Your task to perform on an android device: Check the weather Image 0: 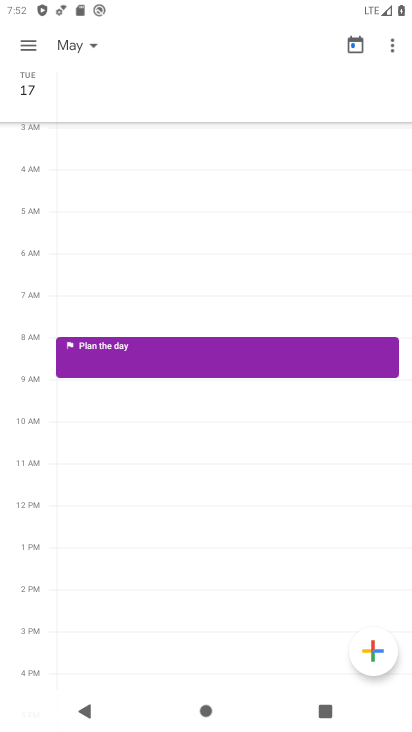
Step 0: press home button
Your task to perform on an android device: Check the weather Image 1: 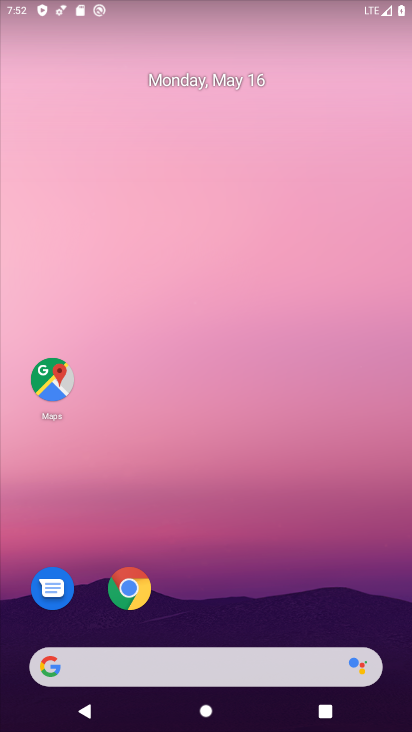
Step 1: click (117, 597)
Your task to perform on an android device: Check the weather Image 2: 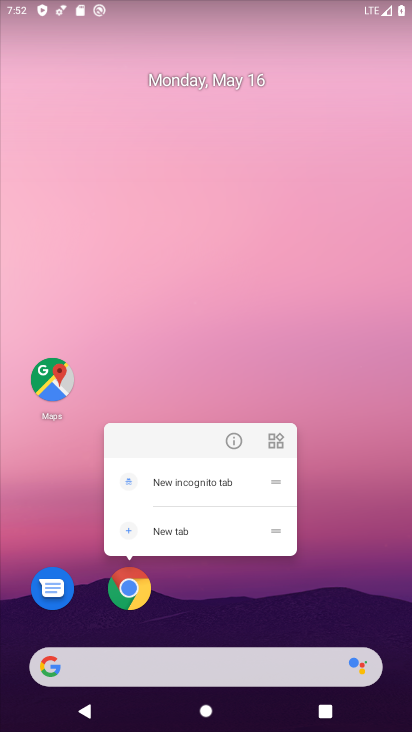
Step 2: click (127, 592)
Your task to perform on an android device: Check the weather Image 3: 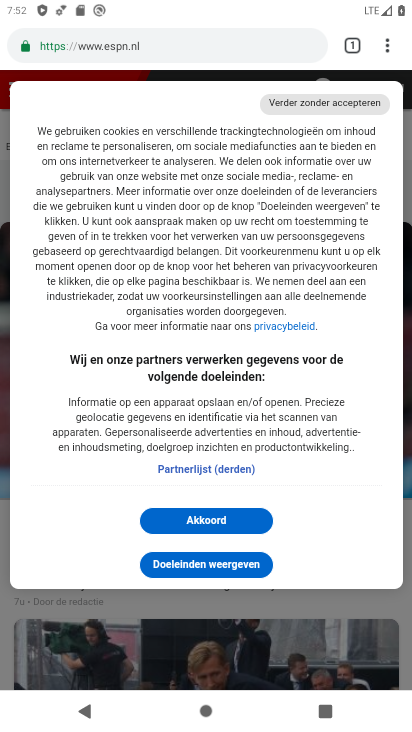
Step 3: click (184, 48)
Your task to perform on an android device: Check the weather Image 4: 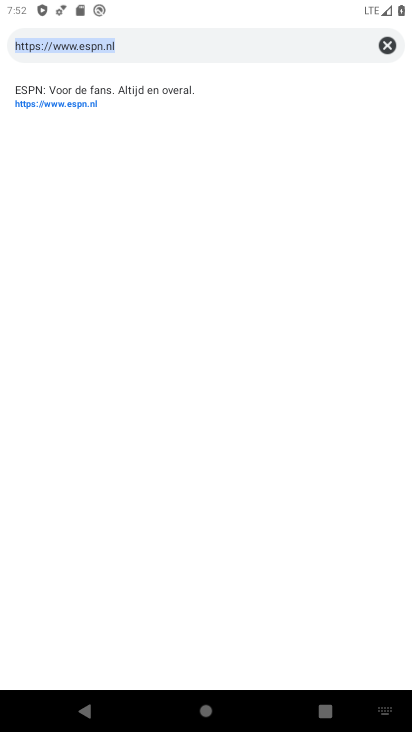
Step 4: type "weather"
Your task to perform on an android device: Check the weather Image 5: 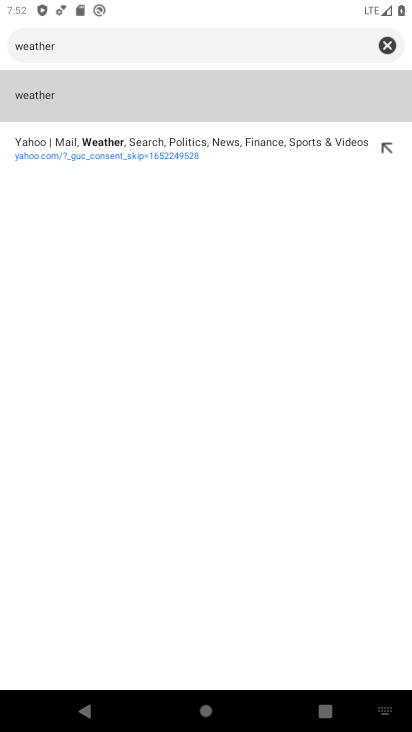
Step 5: click (54, 90)
Your task to perform on an android device: Check the weather Image 6: 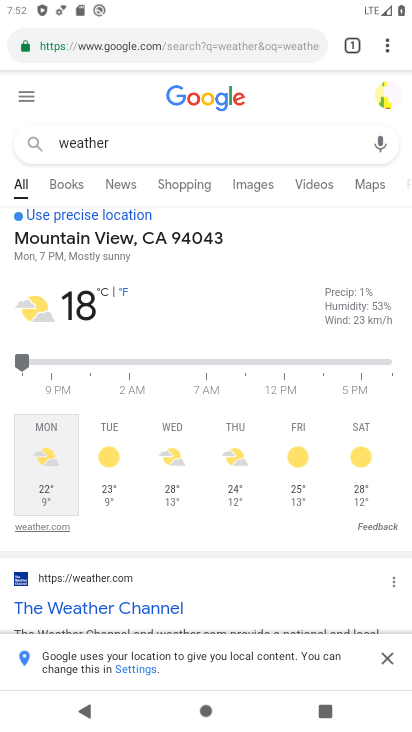
Step 6: task complete